Your task to perform on an android device: change the clock display to analog Image 0: 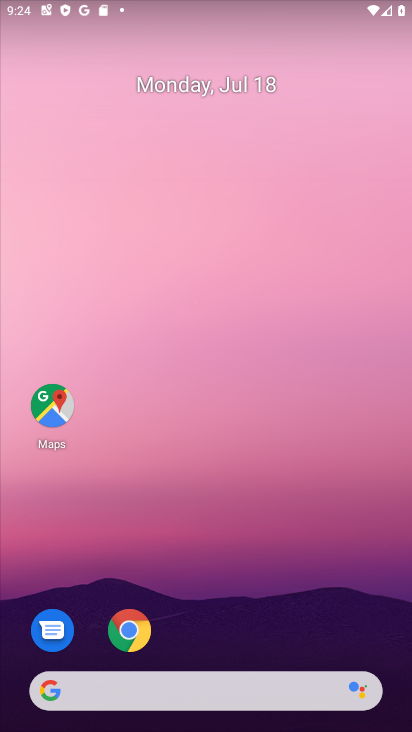
Step 0: drag from (320, 620) to (208, 33)
Your task to perform on an android device: change the clock display to analog Image 1: 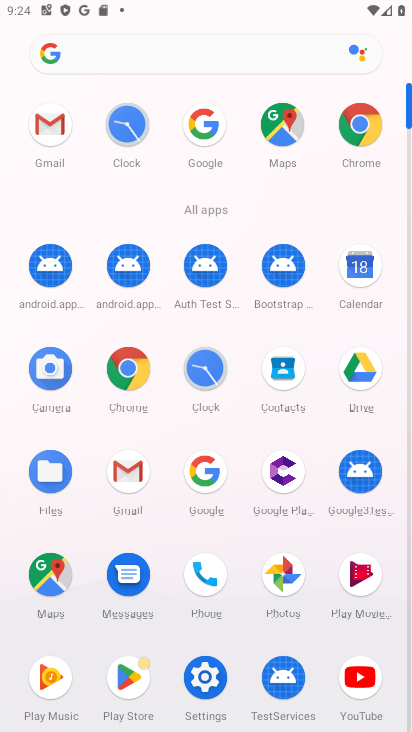
Step 1: click (215, 378)
Your task to perform on an android device: change the clock display to analog Image 2: 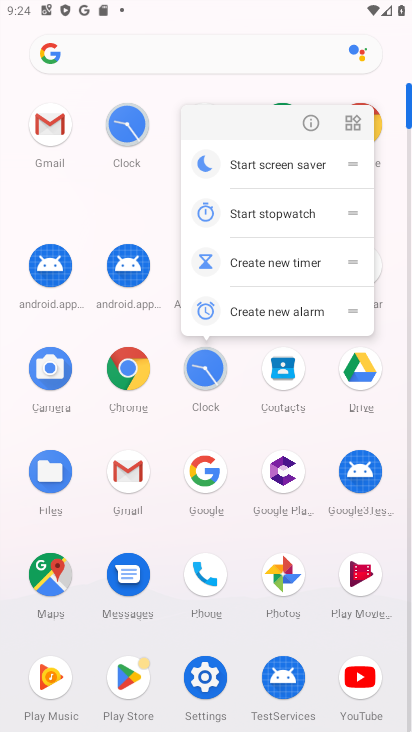
Step 2: click (215, 378)
Your task to perform on an android device: change the clock display to analog Image 3: 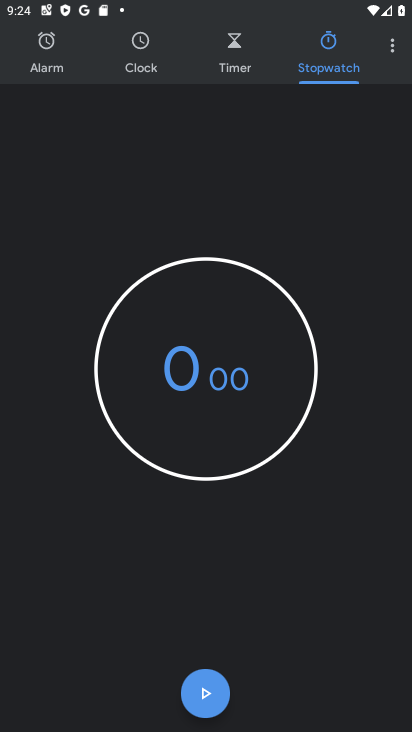
Step 3: click (390, 47)
Your task to perform on an android device: change the clock display to analog Image 4: 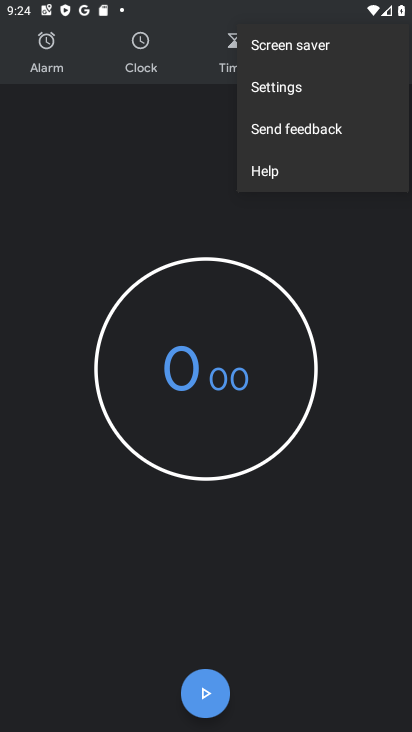
Step 4: click (277, 86)
Your task to perform on an android device: change the clock display to analog Image 5: 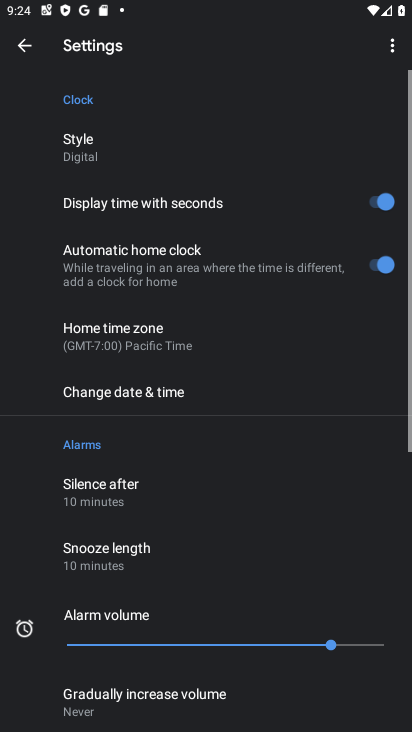
Step 5: click (125, 142)
Your task to perform on an android device: change the clock display to analog Image 6: 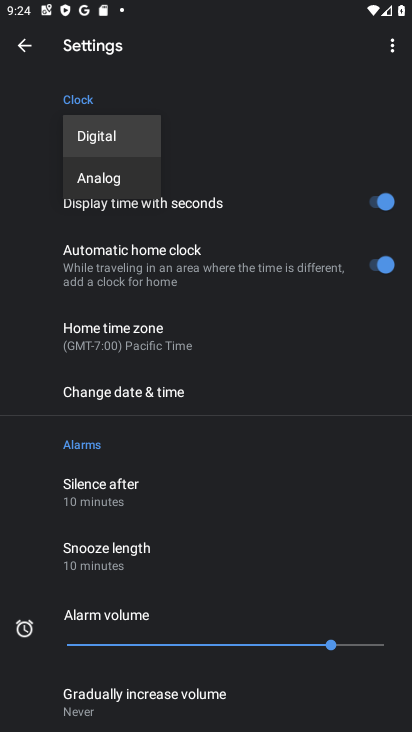
Step 6: click (110, 178)
Your task to perform on an android device: change the clock display to analog Image 7: 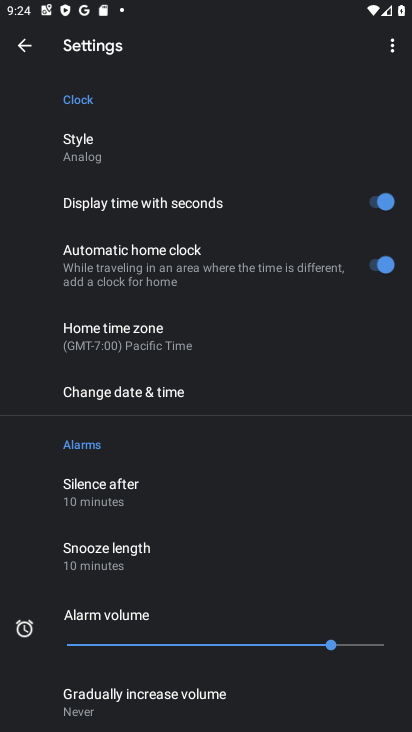
Step 7: task complete